Your task to perform on an android device: Go to Amazon Image 0: 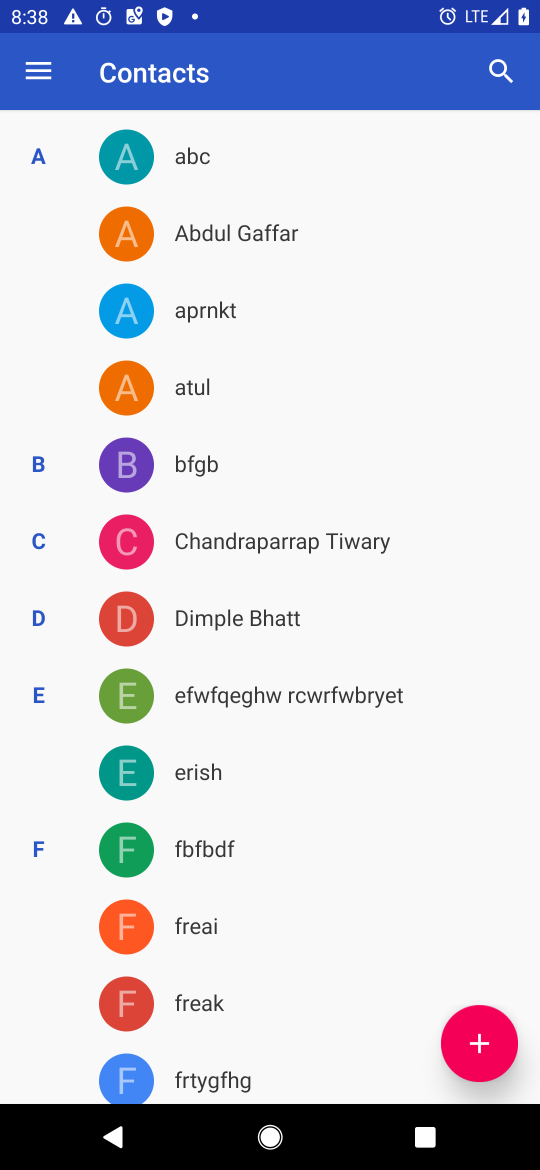
Step 0: press home button
Your task to perform on an android device: Go to Amazon Image 1: 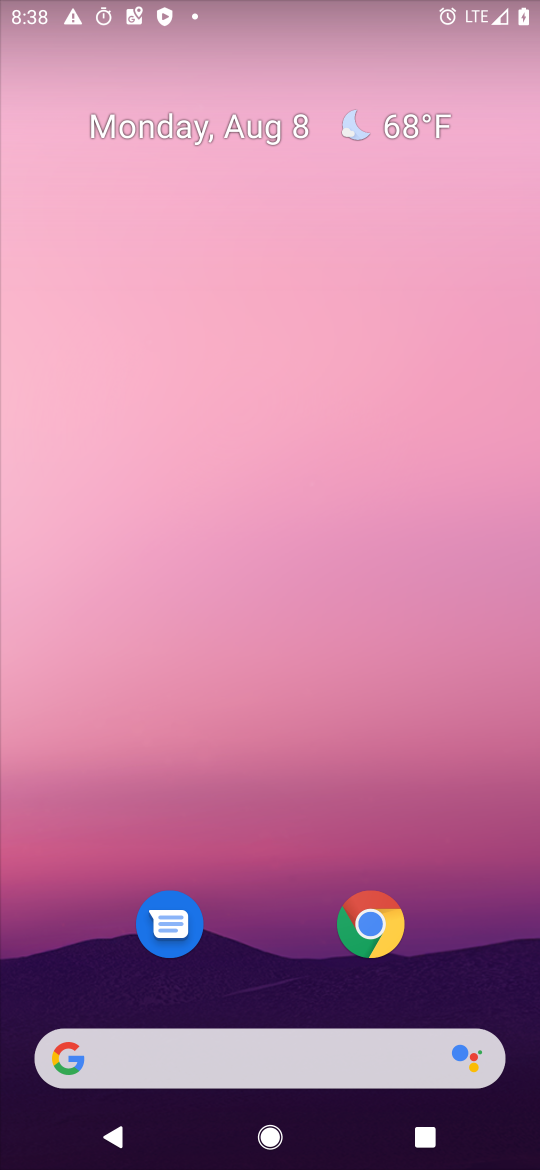
Step 1: drag from (242, 1009) to (165, 203)
Your task to perform on an android device: Go to Amazon Image 2: 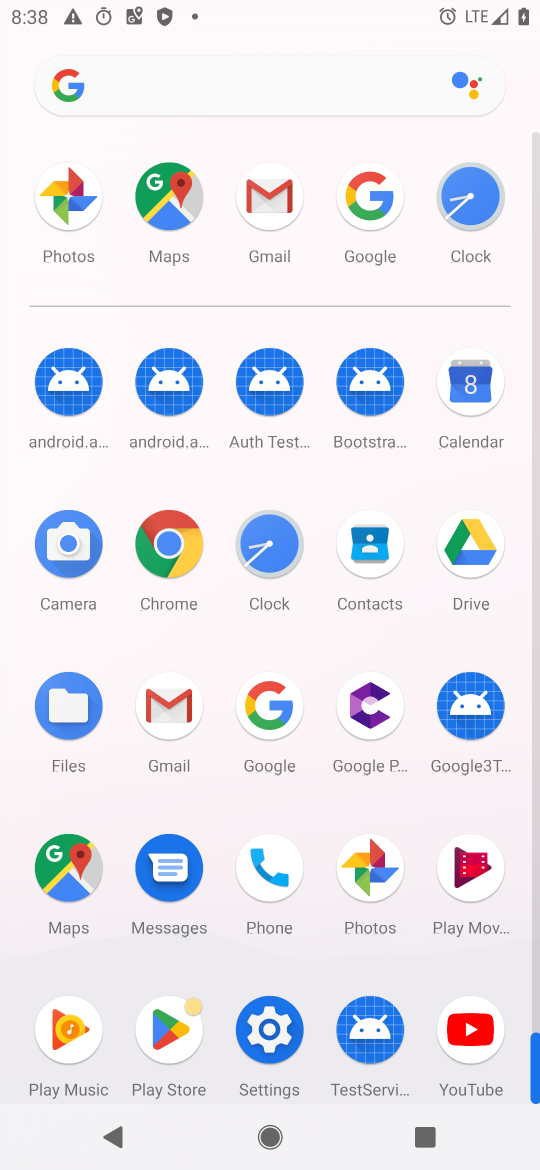
Step 2: click (169, 530)
Your task to perform on an android device: Go to Amazon Image 3: 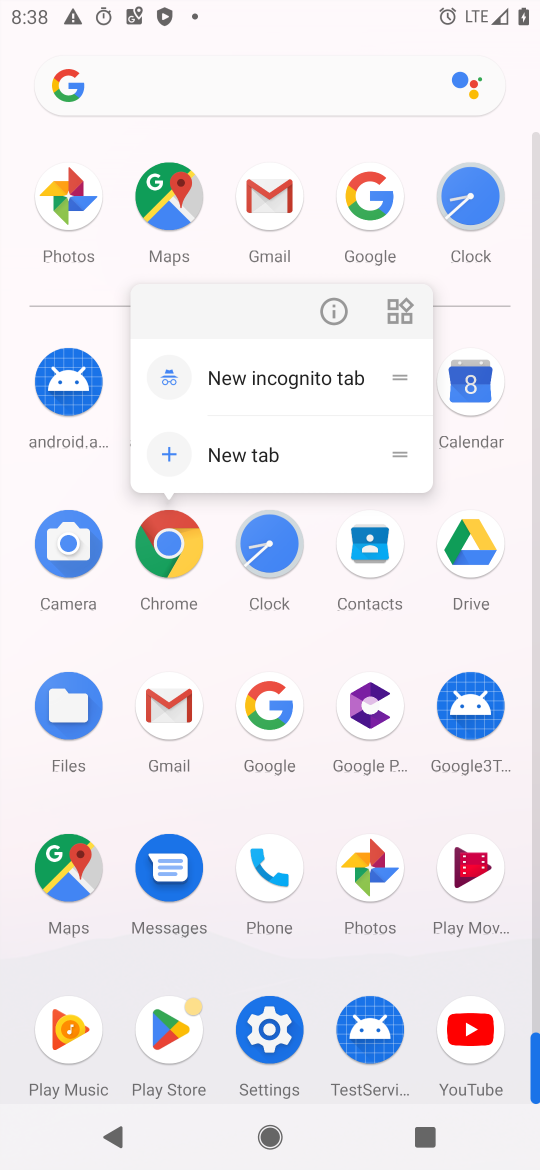
Step 3: click (220, 73)
Your task to perform on an android device: Go to Amazon Image 4: 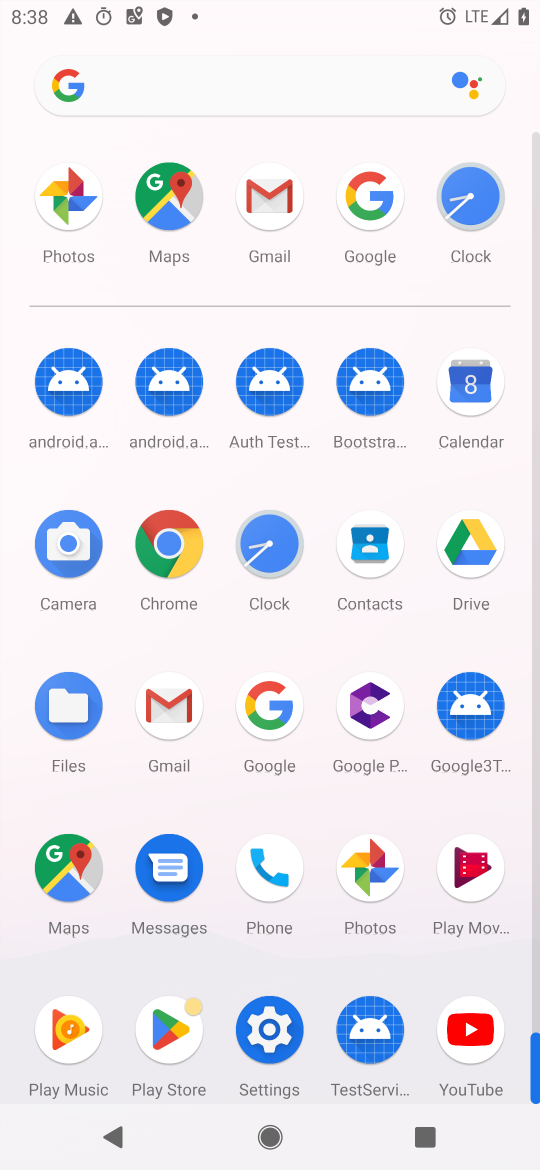
Step 4: click (194, 90)
Your task to perform on an android device: Go to Amazon Image 5: 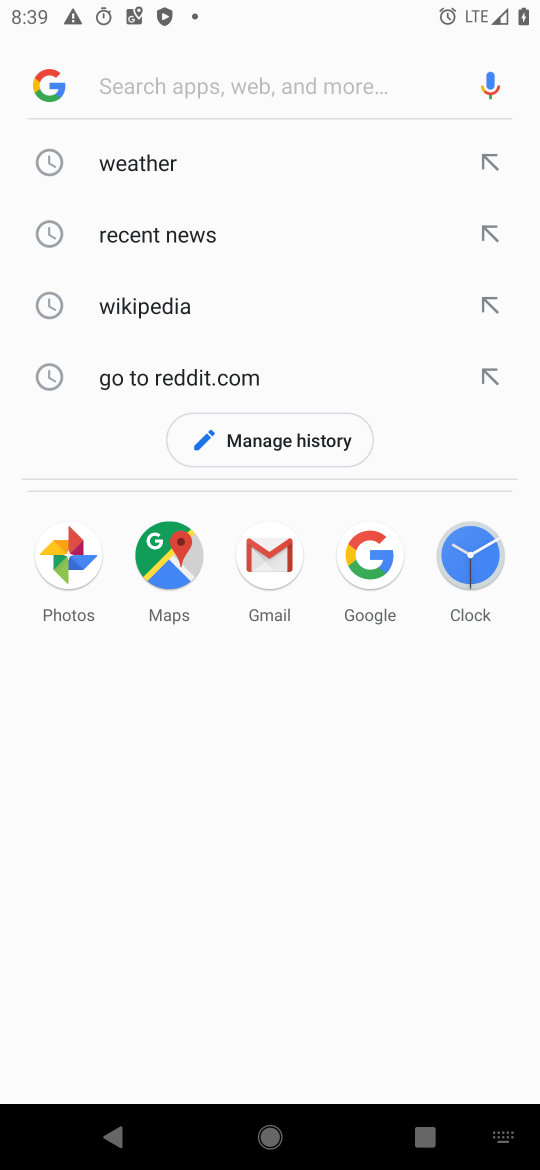
Step 5: type "Amazon"
Your task to perform on an android device: Go to Amazon Image 6: 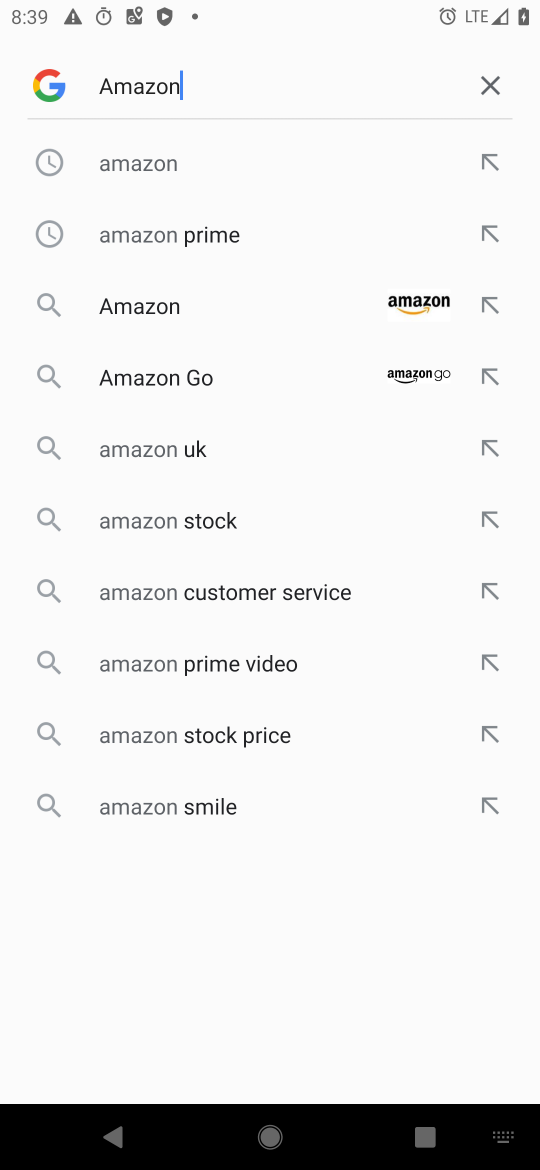
Step 6: click (98, 163)
Your task to perform on an android device: Go to Amazon Image 7: 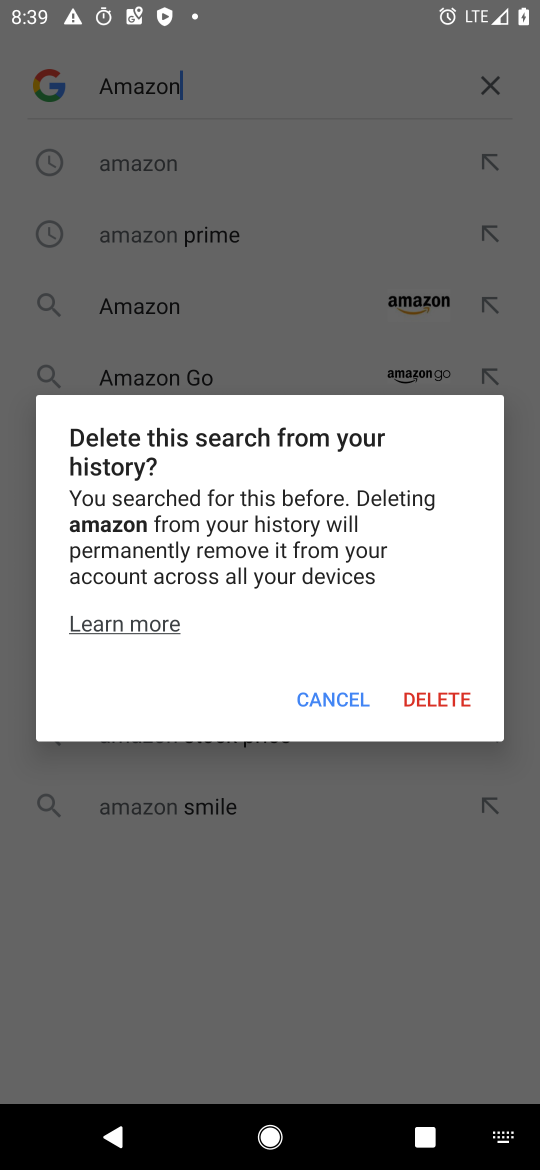
Step 7: click (320, 705)
Your task to perform on an android device: Go to Amazon Image 8: 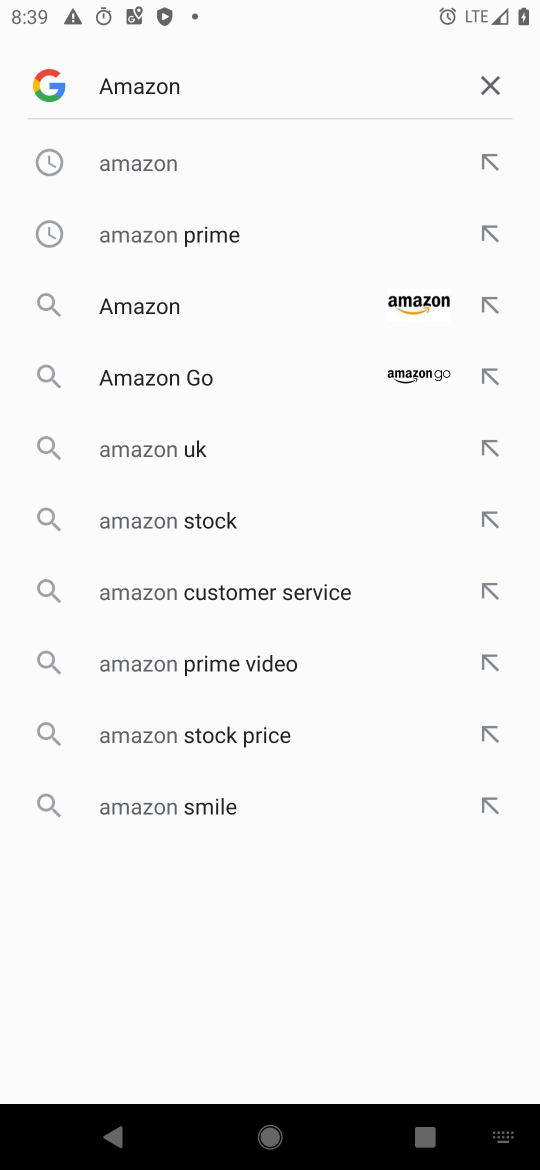
Step 8: click (269, 300)
Your task to perform on an android device: Go to Amazon Image 9: 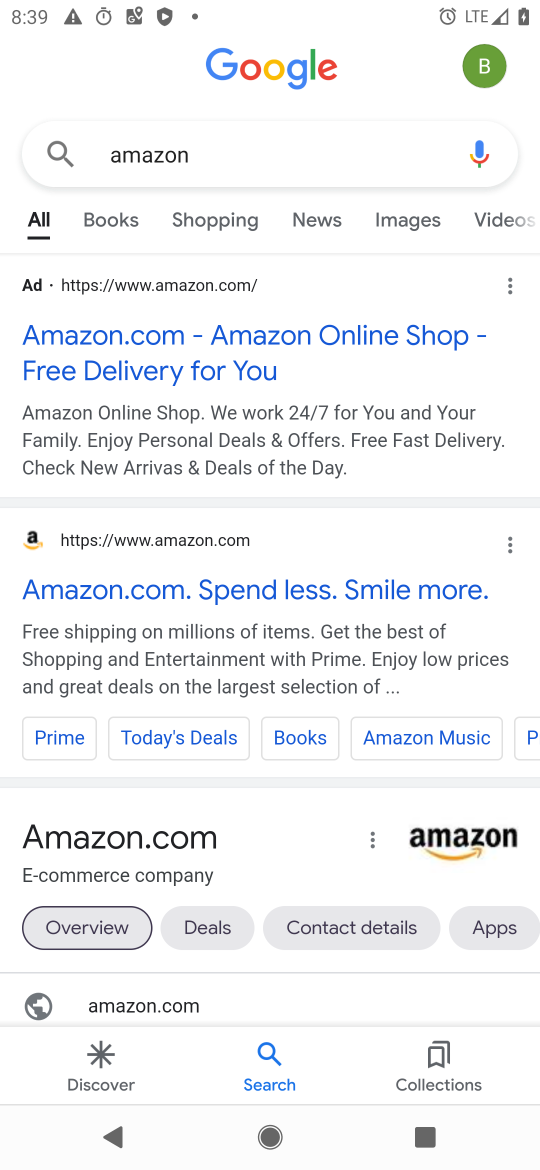
Step 9: task complete